Your task to perform on an android device: turn vacation reply on in the gmail app Image 0: 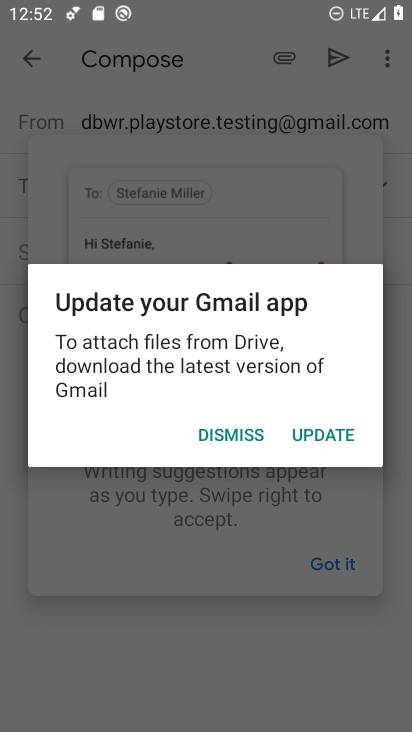
Step 0: press home button
Your task to perform on an android device: turn vacation reply on in the gmail app Image 1: 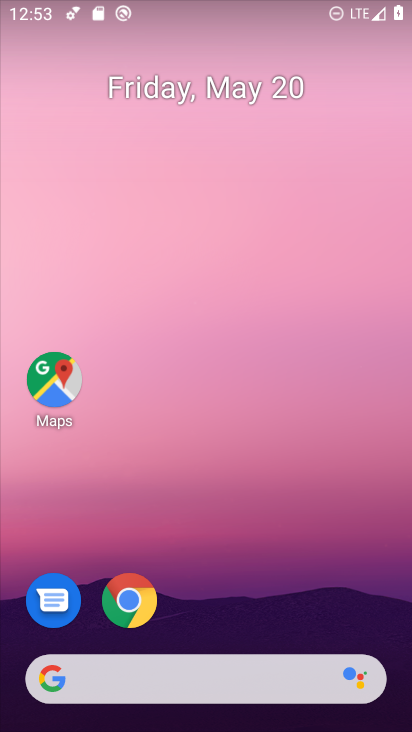
Step 1: drag from (226, 672) to (186, 273)
Your task to perform on an android device: turn vacation reply on in the gmail app Image 2: 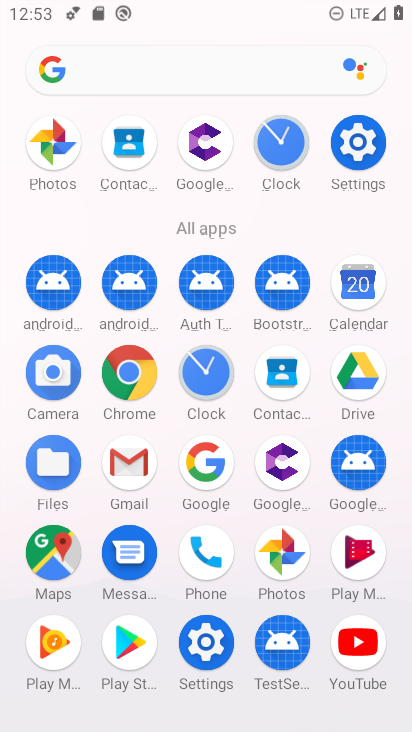
Step 2: click (128, 463)
Your task to perform on an android device: turn vacation reply on in the gmail app Image 3: 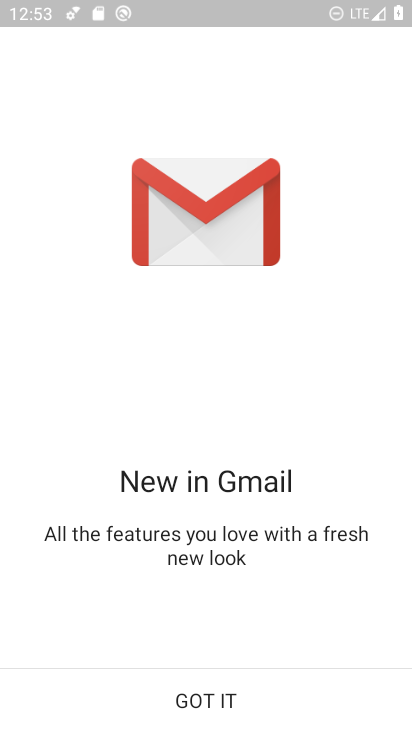
Step 3: click (173, 687)
Your task to perform on an android device: turn vacation reply on in the gmail app Image 4: 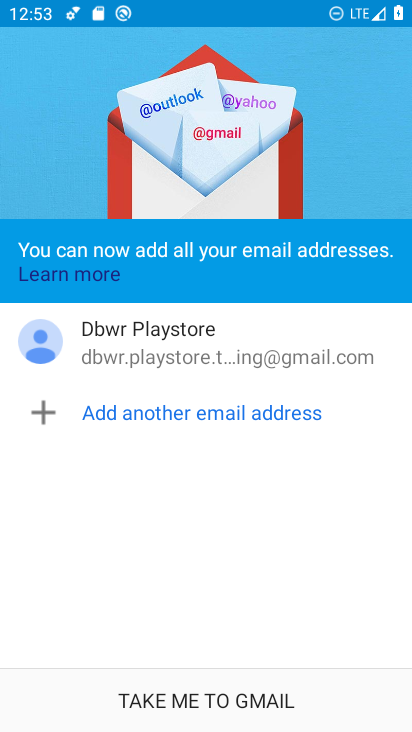
Step 4: click (146, 693)
Your task to perform on an android device: turn vacation reply on in the gmail app Image 5: 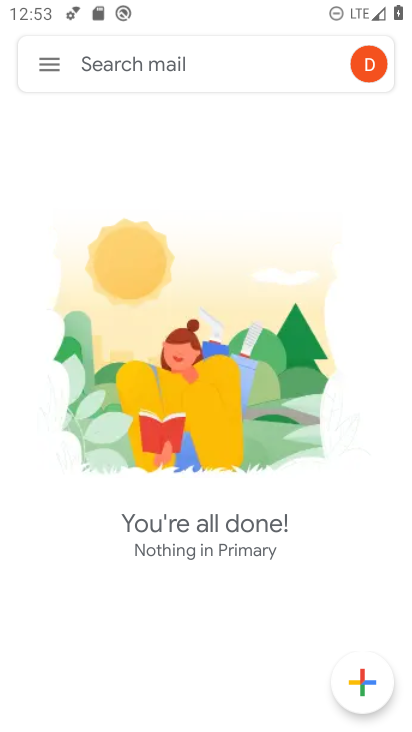
Step 5: click (48, 71)
Your task to perform on an android device: turn vacation reply on in the gmail app Image 6: 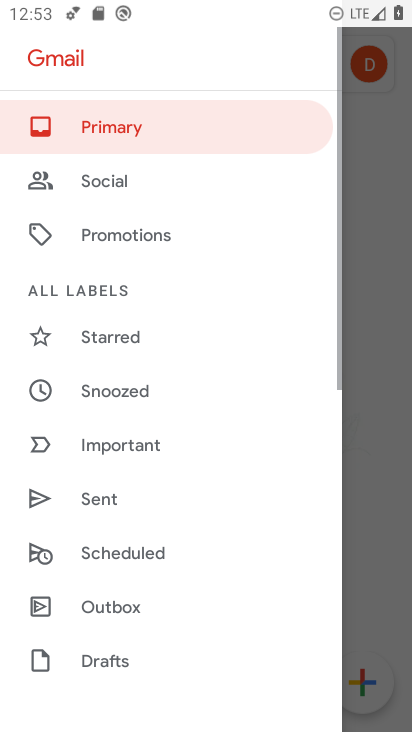
Step 6: drag from (93, 672) to (192, 12)
Your task to perform on an android device: turn vacation reply on in the gmail app Image 7: 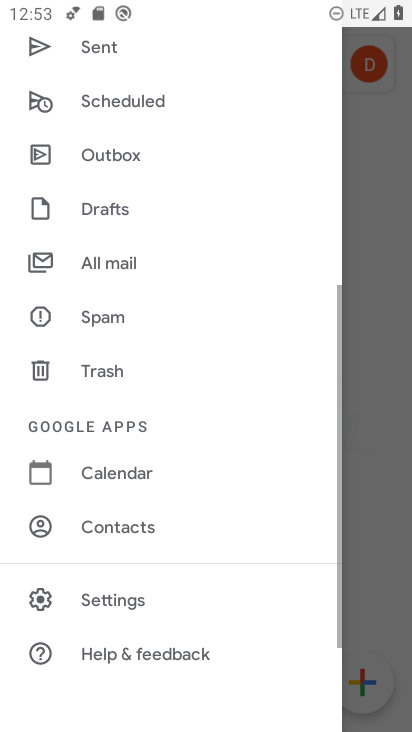
Step 7: click (92, 571)
Your task to perform on an android device: turn vacation reply on in the gmail app Image 8: 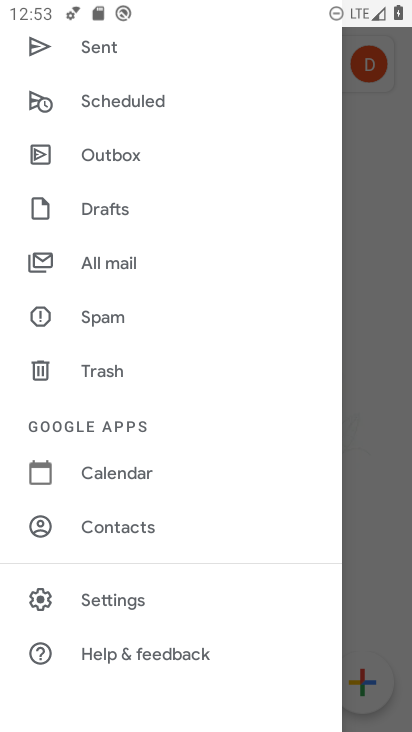
Step 8: click (93, 595)
Your task to perform on an android device: turn vacation reply on in the gmail app Image 9: 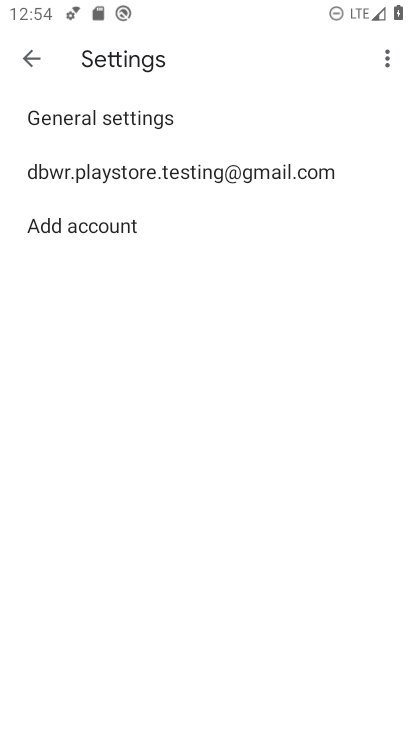
Step 9: click (141, 172)
Your task to perform on an android device: turn vacation reply on in the gmail app Image 10: 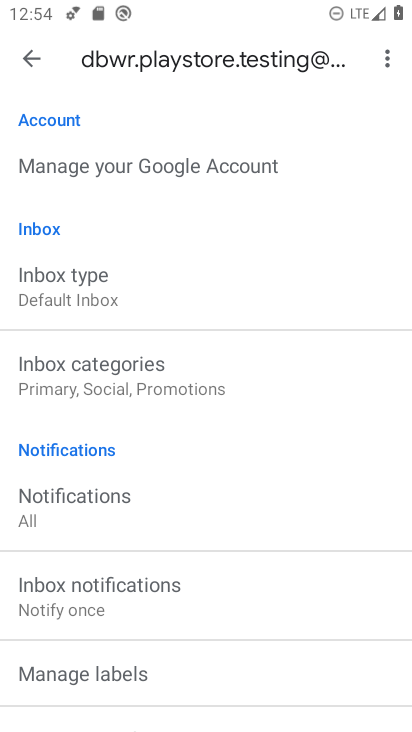
Step 10: drag from (75, 570) to (120, 10)
Your task to perform on an android device: turn vacation reply on in the gmail app Image 11: 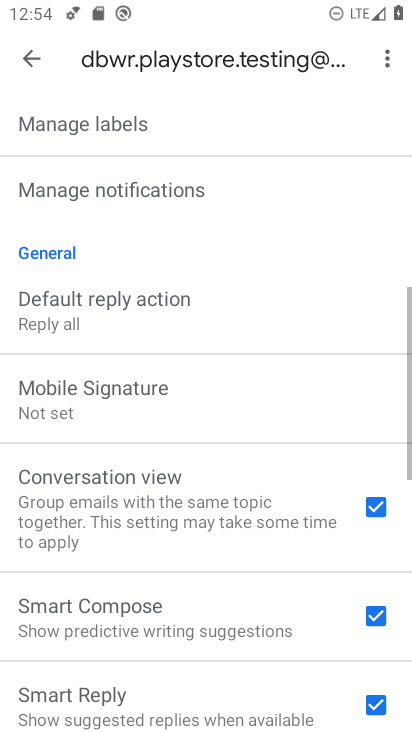
Step 11: drag from (317, 389) to (41, 6)
Your task to perform on an android device: turn vacation reply on in the gmail app Image 12: 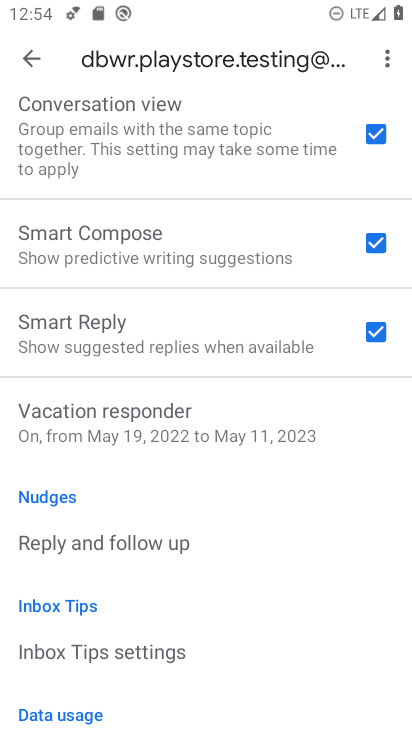
Step 12: click (119, 431)
Your task to perform on an android device: turn vacation reply on in the gmail app Image 13: 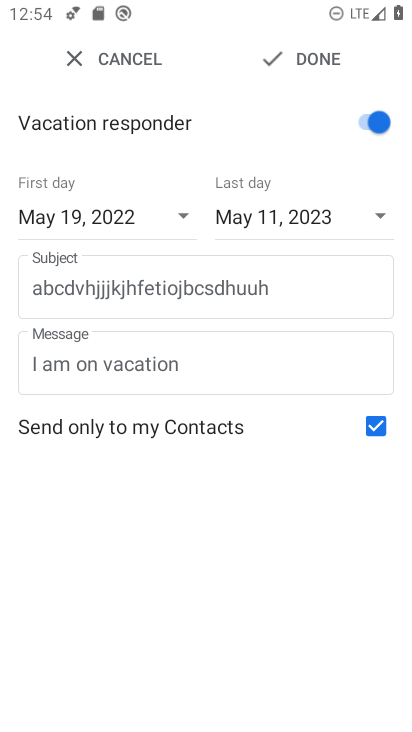
Step 13: click (290, 53)
Your task to perform on an android device: turn vacation reply on in the gmail app Image 14: 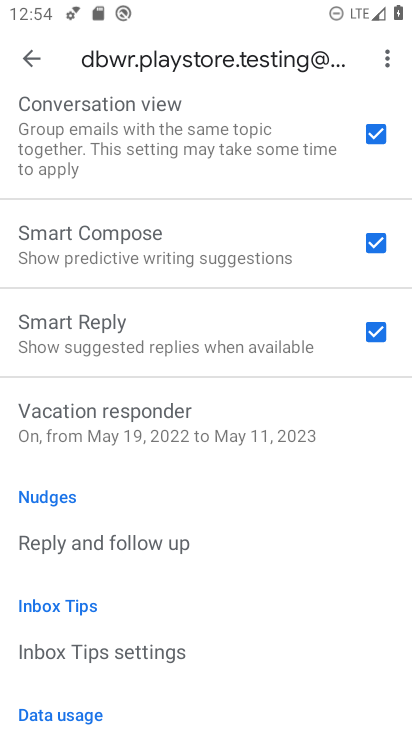
Step 14: task complete